Your task to perform on an android device: What's the weather? Image 0: 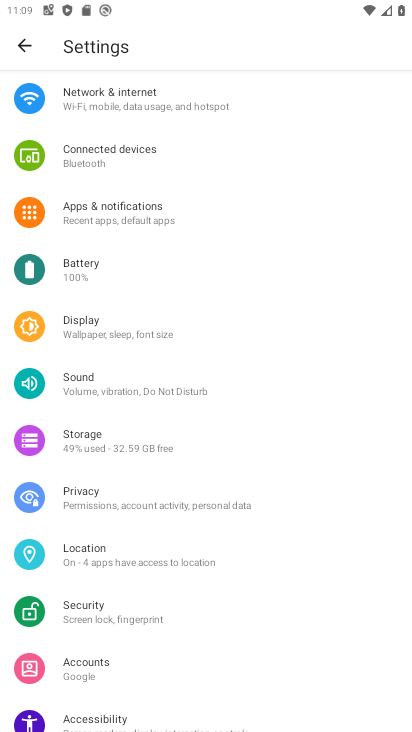
Step 0: press home button
Your task to perform on an android device: What's the weather? Image 1: 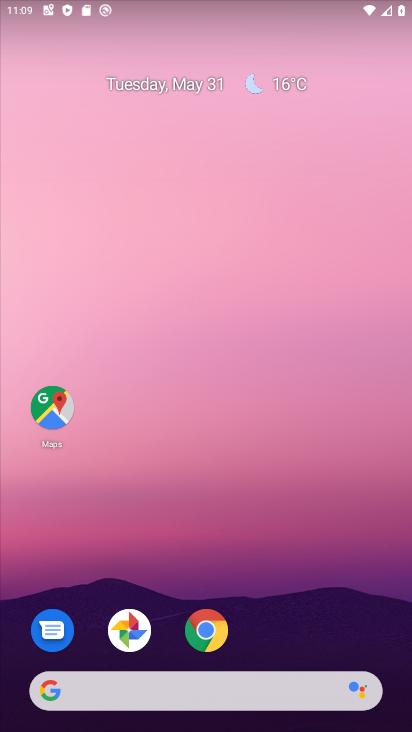
Step 1: drag from (249, 618) to (233, 242)
Your task to perform on an android device: What's the weather? Image 2: 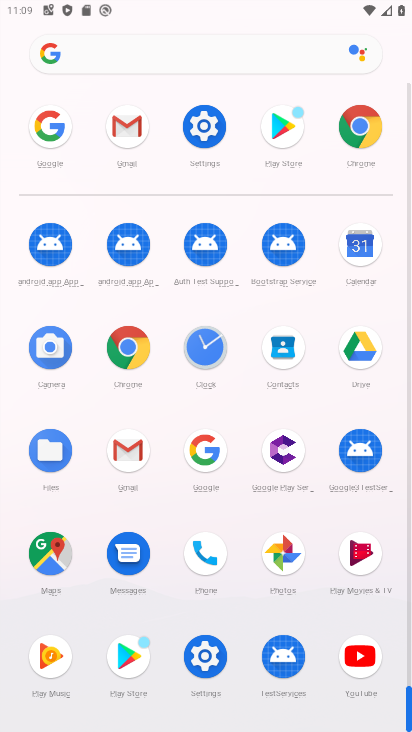
Step 2: click (114, 335)
Your task to perform on an android device: What's the weather? Image 3: 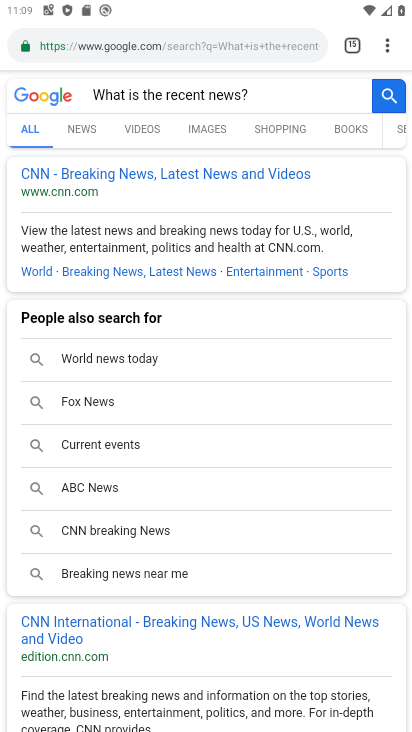
Step 3: click (383, 39)
Your task to perform on an android device: What's the weather? Image 4: 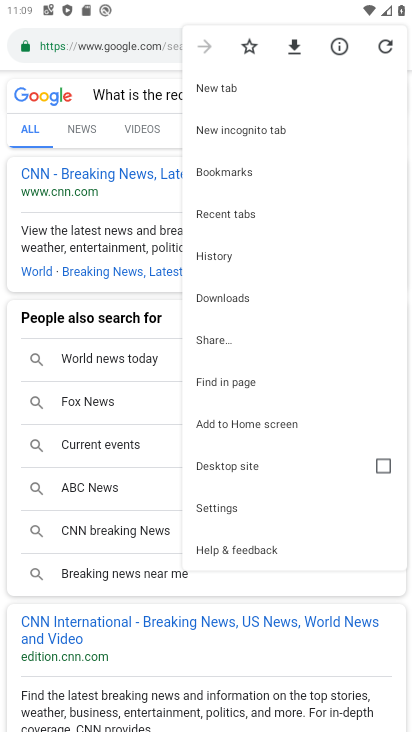
Step 4: click (205, 81)
Your task to perform on an android device: What's the weather? Image 5: 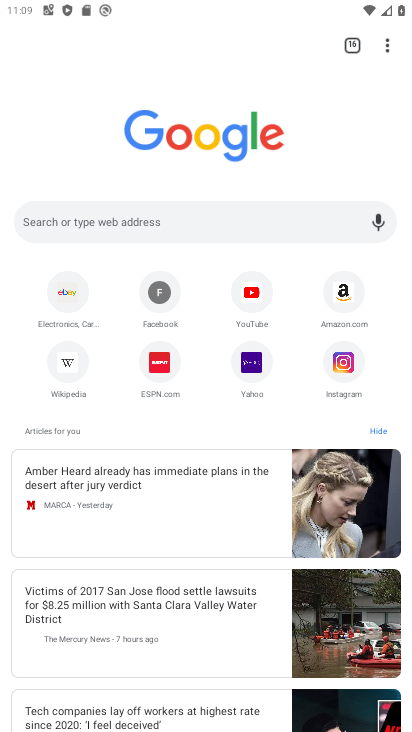
Step 5: click (174, 210)
Your task to perform on an android device: What's the weather? Image 6: 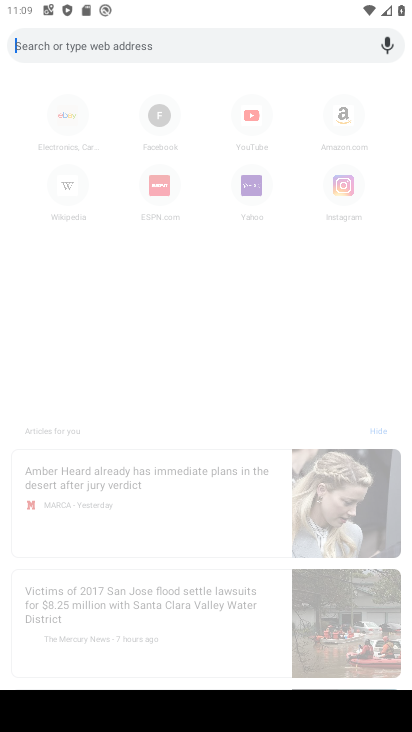
Step 6: type "What's the weather?"
Your task to perform on an android device: What's the weather? Image 7: 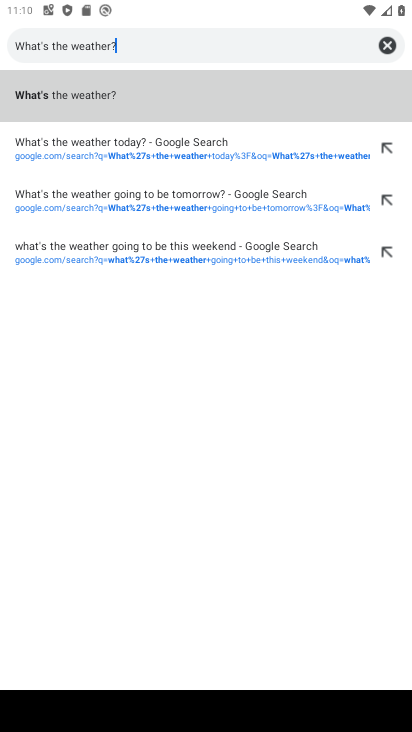
Step 7: click (165, 99)
Your task to perform on an android device: What's the weather? Image 8: 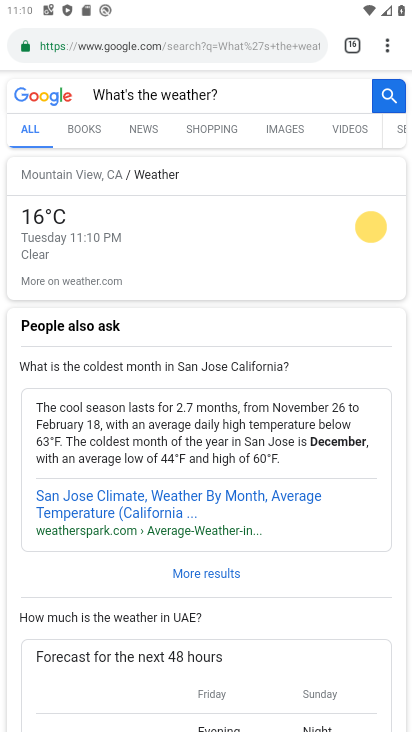
Step 8: task complete